Your task to perform on an android device: Check the price on the Dyson V11 Motorhead on Best Buy Image 0: 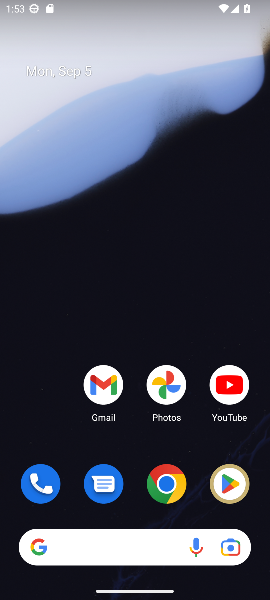
Step 0: click (171, 489)
Your task to perform on an android device: Check the price on the Dyson V11 Motorhead on Best Buy Image 1: 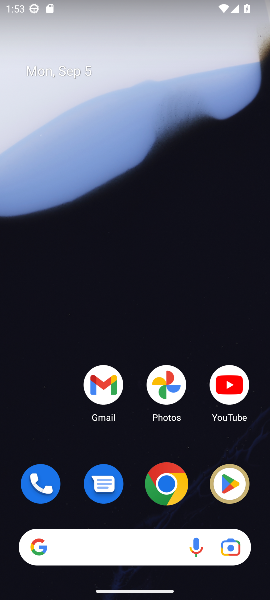
Step 1: click (171, 489)
Your task to perform on an android device: Check the price on the Dyson V11 Motorhead on Best Buy Image 2: 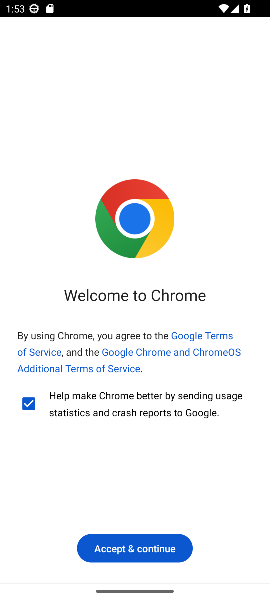
Step 2: click (119, 550)
Your task to perform on an android device: Check the price on the Dyson V11 Motorhead on Best Buy Image 3: 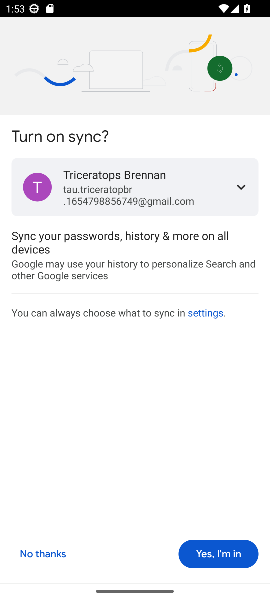
Step 3: click (215, 555)
Your task to perform on an android device: Check the price on the Dyson V11 Motorhead on Best Buy Image 4: 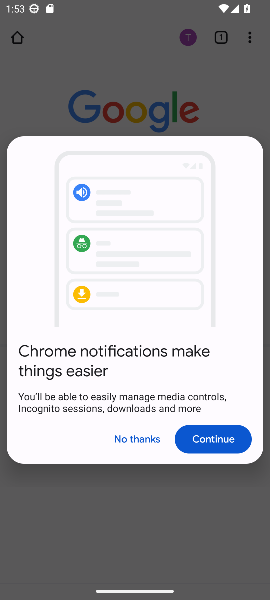
Step 4: click (233, 444)
Your task to perform on an android device: Check the price on the Dyson V11 Motorhead on Best Buy Image 5: 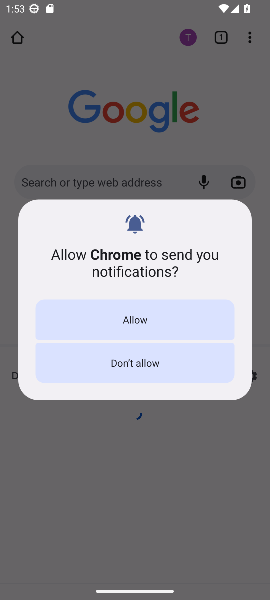
Step 5: click (171, 368)
Your task to perform on an android device: Check the price on the Dyson V11 Motorhead on Best Buy Image 6: 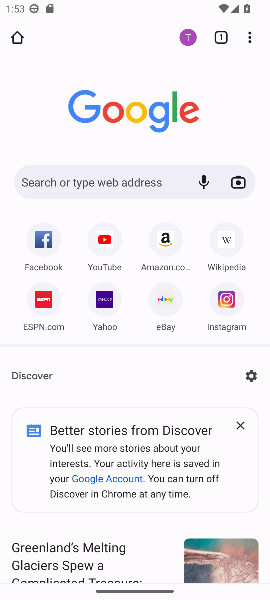
Step 6: click (89, 183)
Your task to perform on an android device: Check the price on the Dyson V11 Motorhead on Best Buy Image 7: 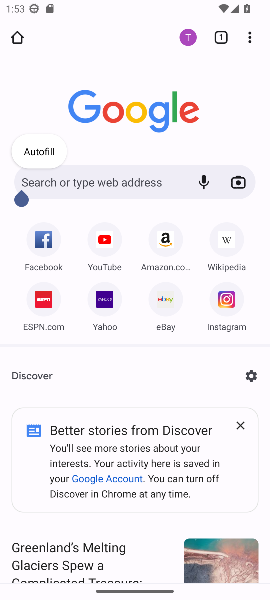
Step 7: click (89, 182)
Your task to perform on an android device: Check the price on the Dyson V11 Motorhead on Best Buy Image 8: 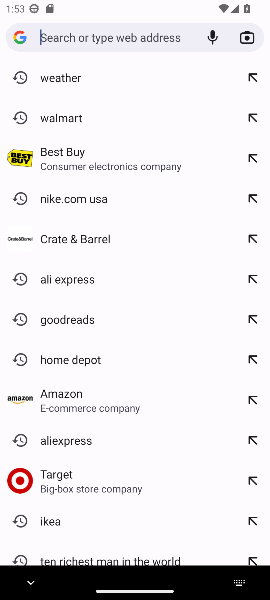
Step 8: click (69, 157)
Your task to perform on an android device: Check the price on the Dyson V11 Motorhead on Best Buy Image 9: 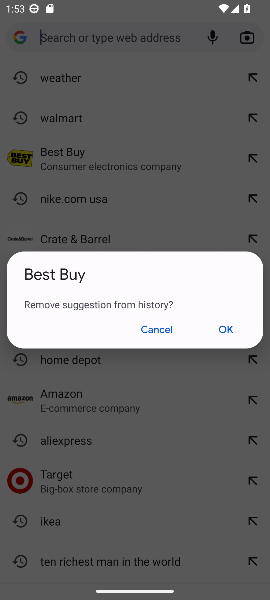
Step 9: click (158, 332)
Your task to perform on an android device: Check the price on the Dyson V11 Motorhead on Best Buy Image 10: 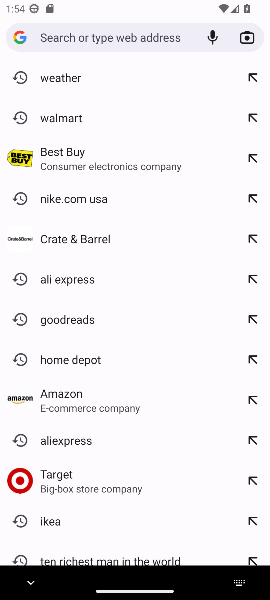
Step 10: press enter
Your task to perform on an android device: Check the price on the Dyson V11 Motorhead on Best Buy Image 11: 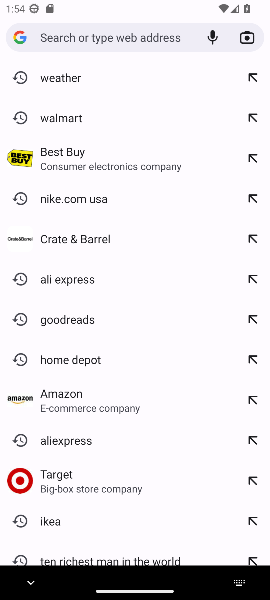
Step 11: type "Best Buy"
Your task to perform on an android device: Check the price on the Dyson V11 Motorhead on Best Buy Image 12: 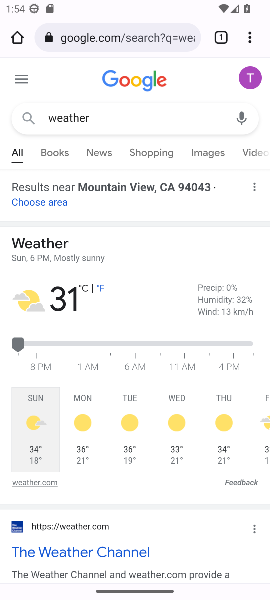
Step 12: click (73, 35)
Your task to perform on an android device: Check the price on the Dyson V11 Motorhead on Best Buy Image 13: 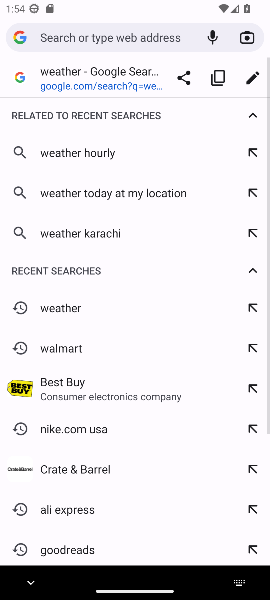
Step 13: press enter
Your task to perform on an android device: Check the price on the Dyson V11 Motorhead on Best Buy Image 14: 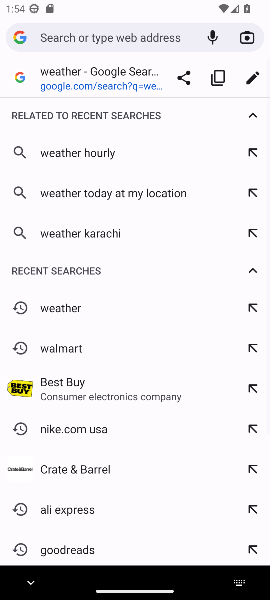
Step 14: type " Best Buy"
Your task to perform on an android device: Check the price on the Dyson V11 Motorhead on Best Buy Image 15: 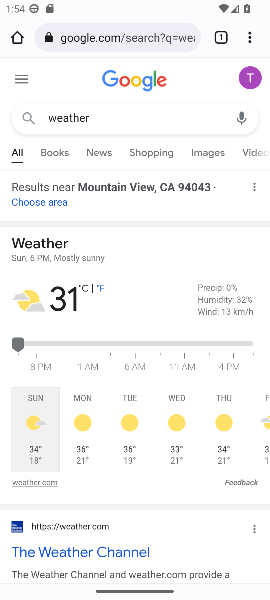
Step 15: press back button
Your task to perform on an android device: Check the price on the Dyson V11 Motorhead on Best Buy Image 16: 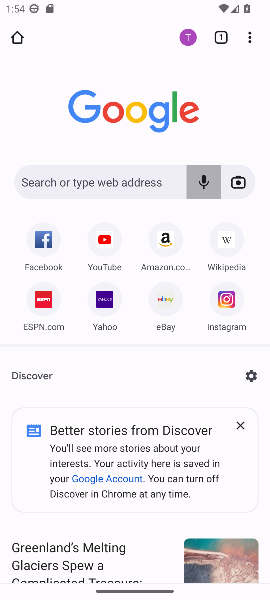
Step 16: click (86, 184)
Your task to perform on an android device: Check the price on the Dyson V11 Motorhead on Best Buy Image 17: 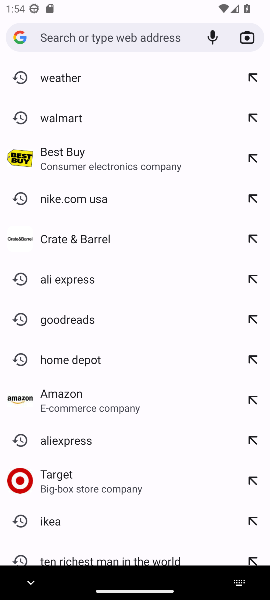
Step 17: click (26, 158)
Your task to perform on an android device: Check the price on the Dyson V11 Motorhead on Best Buy Image 18: 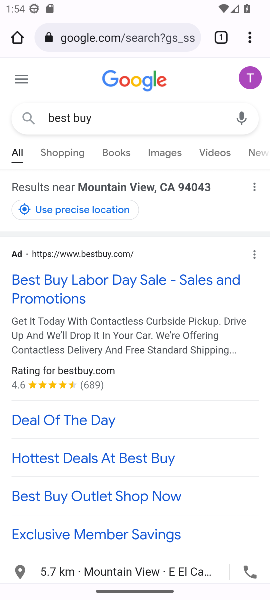
Step 18: drag from (134, 462) to (180, 277)
Your task to perform on an android device: Check the price on the Dyson V11 Motorhead on Best Buy Image 19: 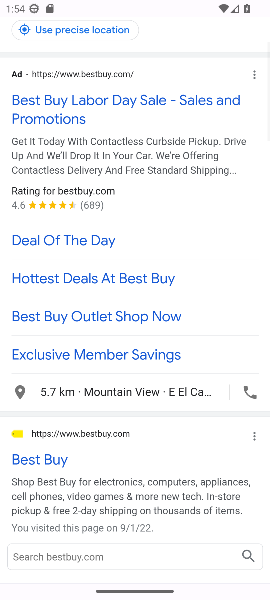
Step 19: click (48, 454)
Your task to perform on an android device: Check the price on the Dyson V11 Motorhead on Best Buy Image 20: 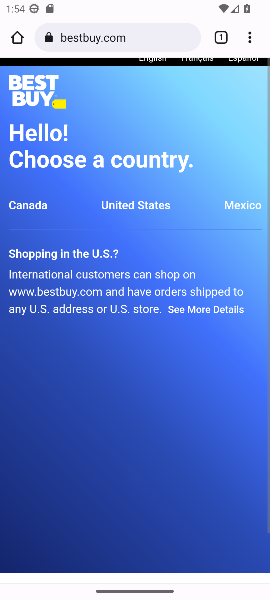
Step 20: click (47, 460)
Your task to perform on an android device: Check the price on the Dyson V11 Motorhead on Best Buy Image 21: 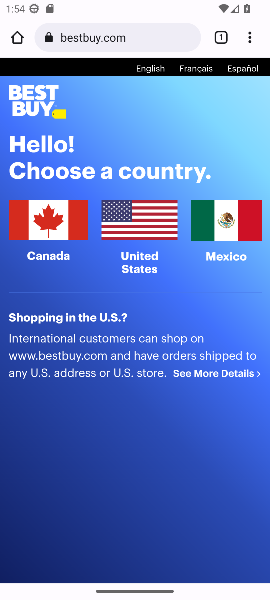
Step 21: click (140, 218)
Your task to perform on an android device: Check the price on the Dyson V11 Motorhead on Best Buy Image 22: 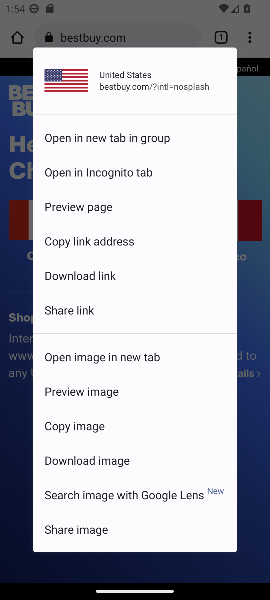
Step 22: click (262, 464)
Your task to perform on an android device: Check the price on the Dyson V11 Motorhead on Best Buy Image 23: 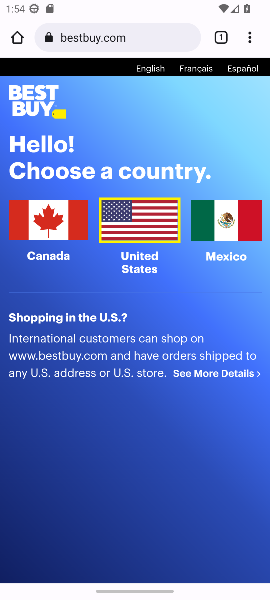
Step 23: click (124, 225)
Your task to perform on an android device: Check the price on the Dyson V11 Motorhead on Best Buy Image 24: 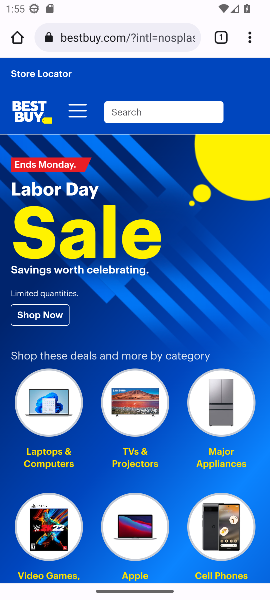
Step 24: click (142, 112)
Your task to perform on an android device: Check the price on the Dyson V11 Motorhead on Best Buy Image 25: 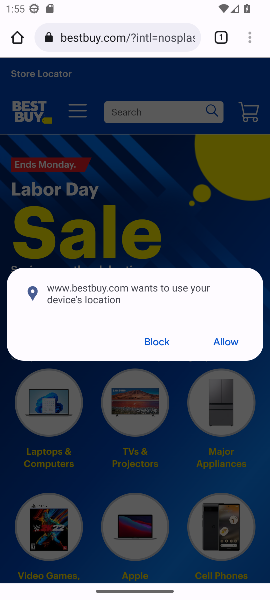
Step 25: click (167, 341)
Your task to perform on an android device: Check the price on the Dyson V11 Motorhead on Best Buy Image 26: 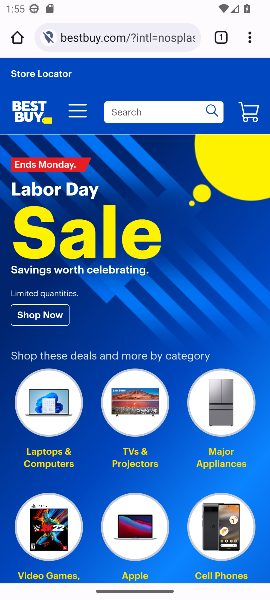
Step 26: click (124, 113)
Your task to perform on an android device: Check the price on the Dyson V11 Motorhead on Best Buy Image 27: 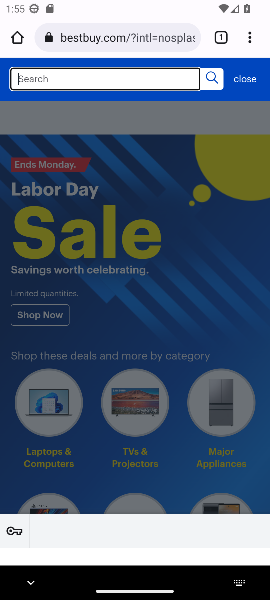
Step 27: type " Dyson V11 Motorhead"
Your task to perform on an android device: Check the price on the Dyson V11 Motorhead on Best Buy Image 28: 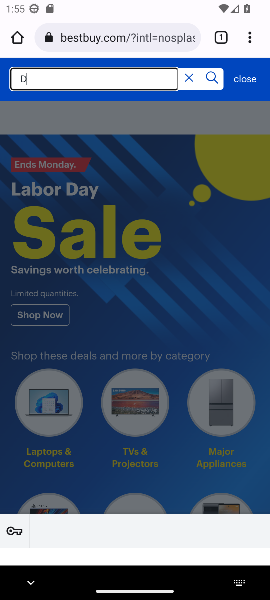
Step 28: press enter
Your task to perform on an android device: Check the price on the Dyson V11 Motorhead on Best Buy Image 29: 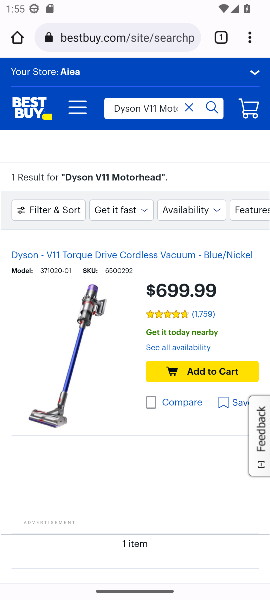
Step 29: task complete